Your task to perform on an android device: Do I have any events tomorrow? Image 0: 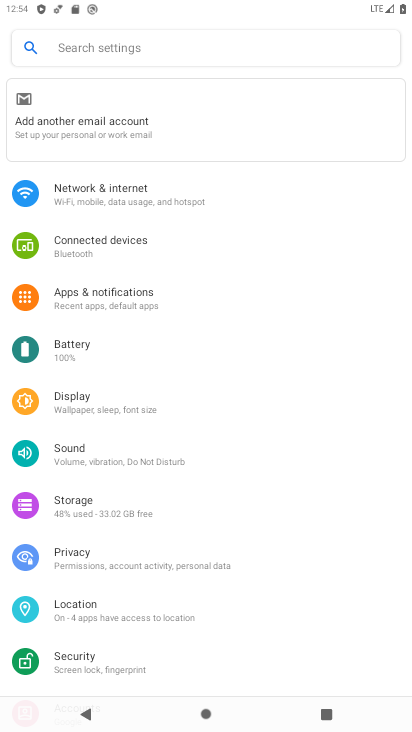
Step 0: press home button
Your task to perform on an android device: Do I have any events tomorrow? Image 1: 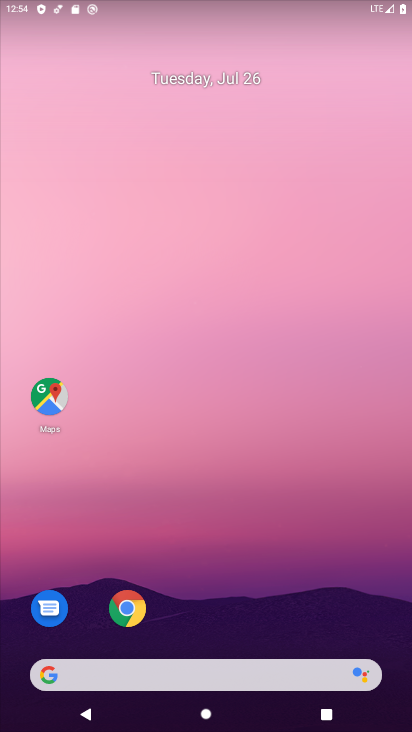
Step 1: drag from (266, 613) to (248, 185)
Your task to perform on an android device: Do I have any events tomorrow? Image 2: 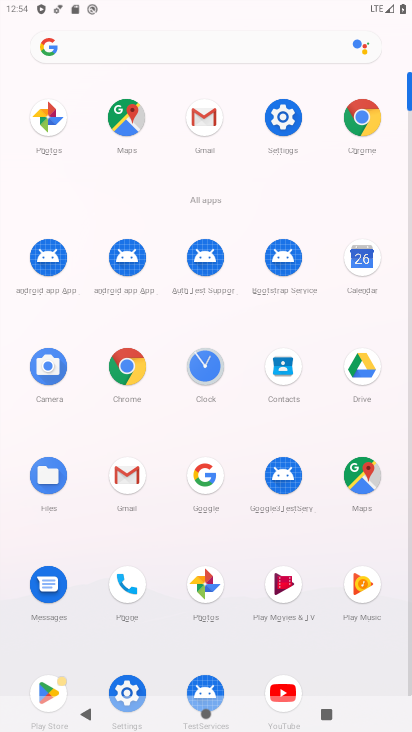
Step 2: click (365, 270)
Your task to perform on an android device: Do I have any events tomorrow? Image 3: 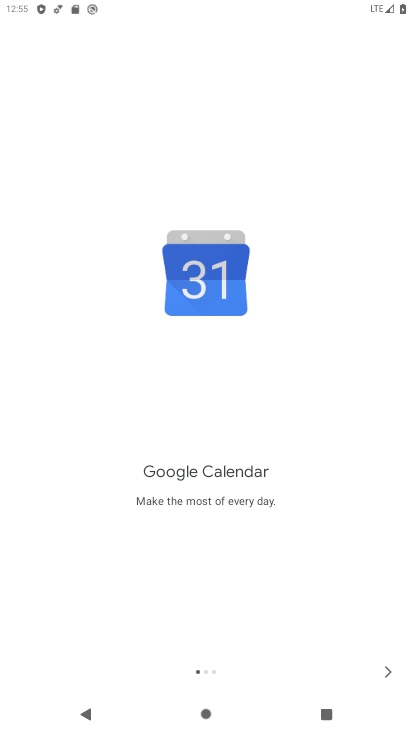
Step 3: click (387, 667)
Your task to perform on an android device: Do I have any events tomorrow? Image 4: 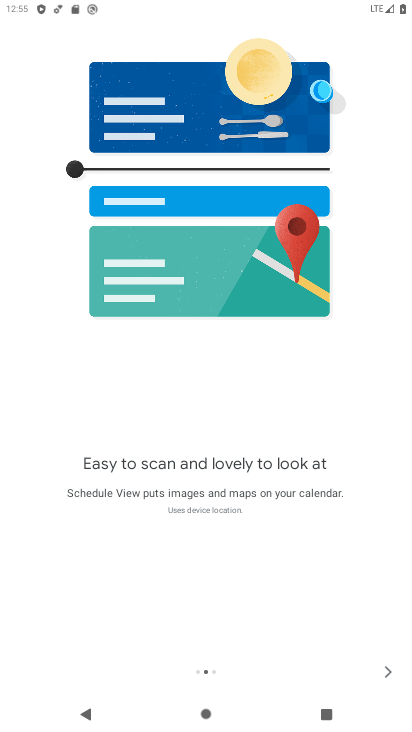
Step 4: click (387, 667)
Your task to perform on an android device: Do I have any events tomorrow? Image 5: 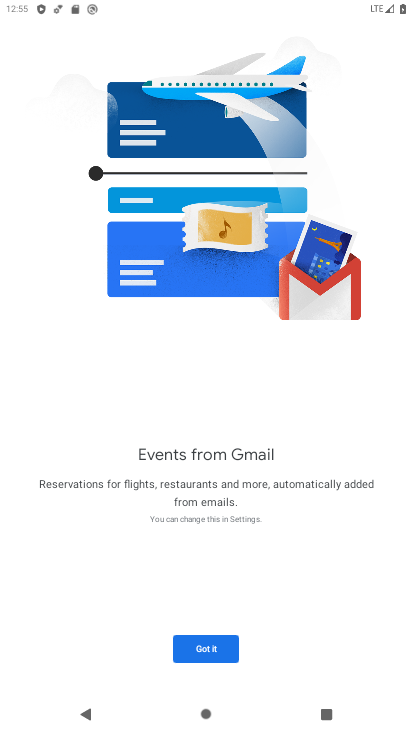
Step 5: click (179, 650)
Your task to perform on an android device: Do I have any events tomorrow? Image 6: 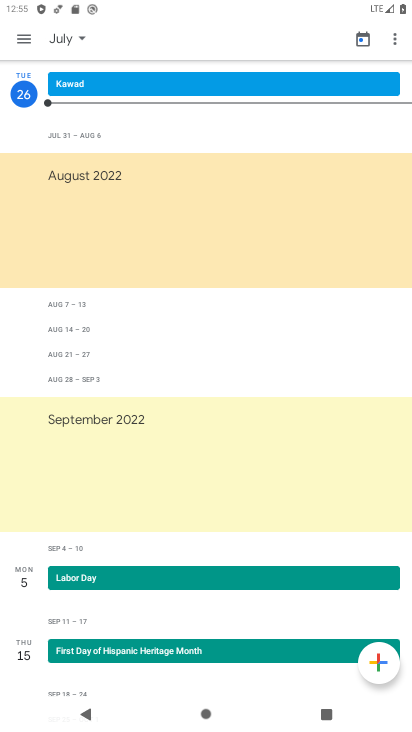
Step 6: click (27, 40)
Your task to perform on an android device: Do I have any events tomorrow? Image 7: 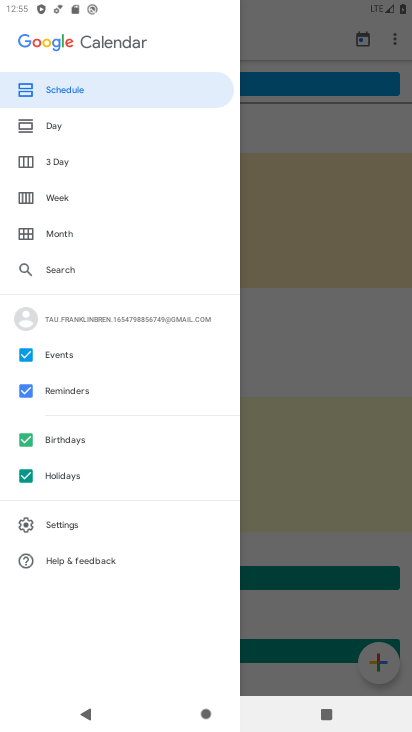
Step 7: click (23, 485)
Your task to perform on an android device: Do I have any events tomorrow? Image 8: 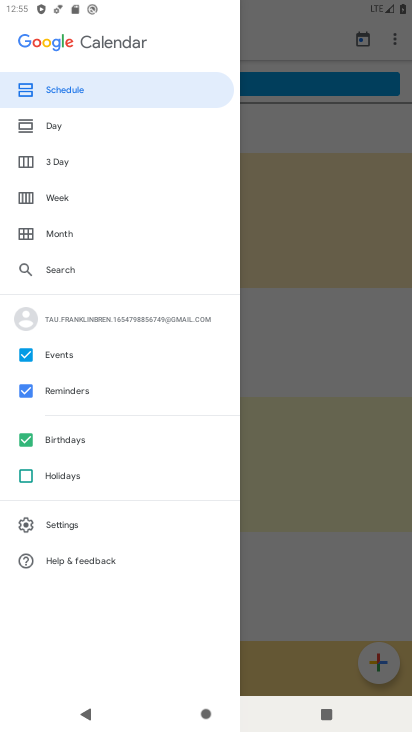
Step 8: click (25, 441)
Your task to perform on an android device: Do I have any events tomorrow? Image 9: 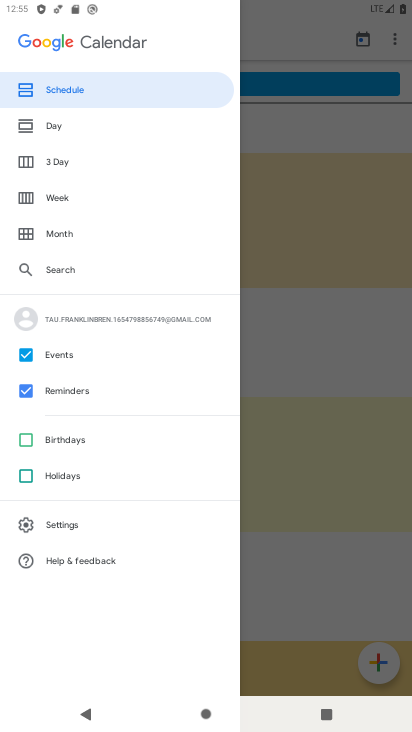
Step 9: click (27, 392)
Your task to perform on an android device: Do I have any events tomorrow? Image 10: 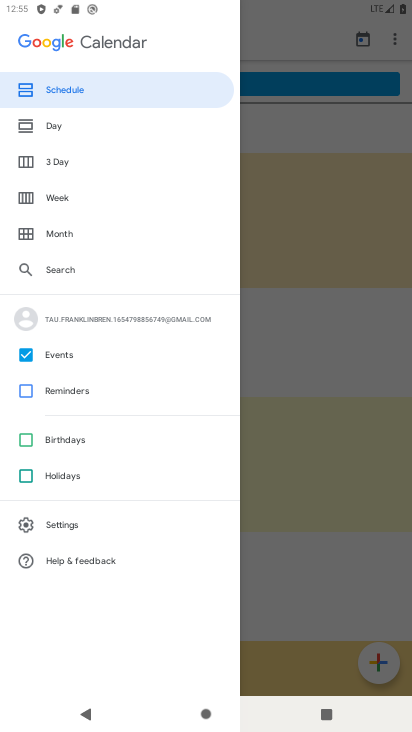
Step 10: click (70, 128)
Your task to perform on an android device: Do I have any events tomorrow? Image 11: 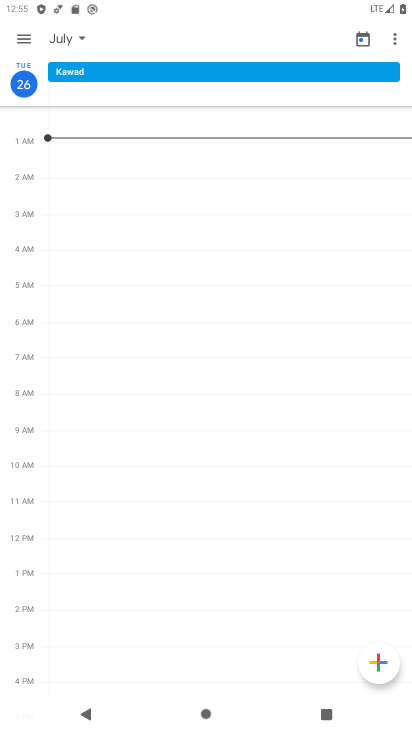
Step 11: task complete